Your task to perform on an android device: Show me popular videos on Youtube Image 0: 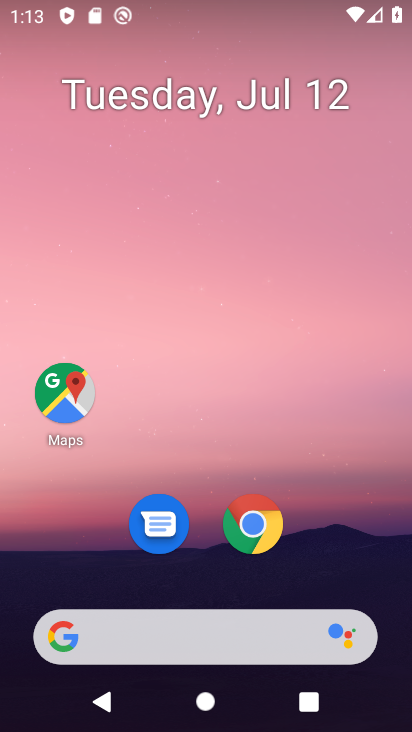
Step 0: drag from (278, 452) to (246, 38)
Your task to perform on an android device: Show me popular videos on Youtube Image 1: 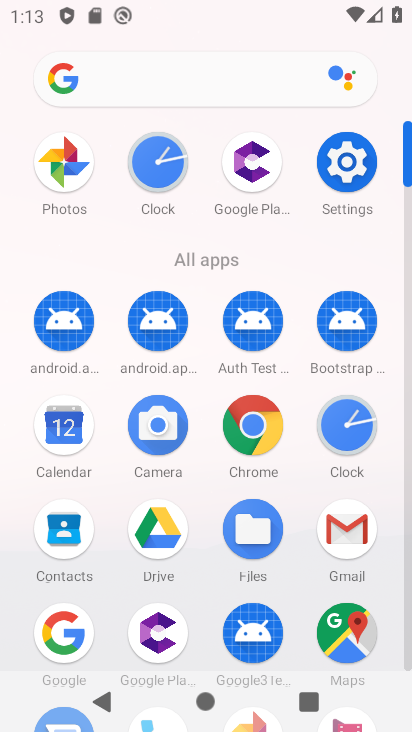
Step 1: drag from (200, 464) to (228, 116)
Your task to perform on an android device: Show me popular videos on Youtube Image 2: 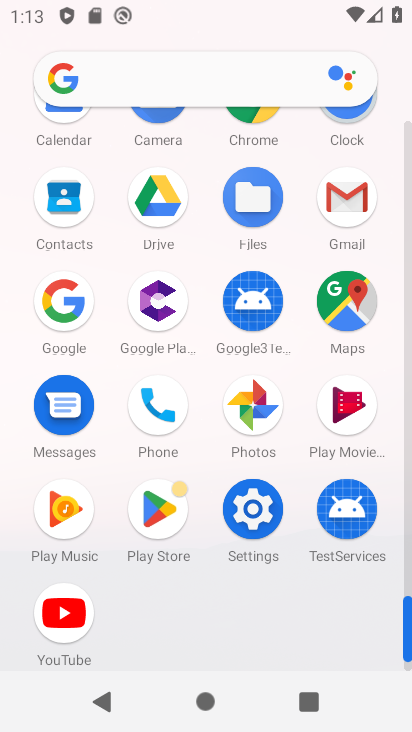
Step 2: click (56, 611)
Your task to perform on an android device: Show me popular videos on Youtube Image 3: 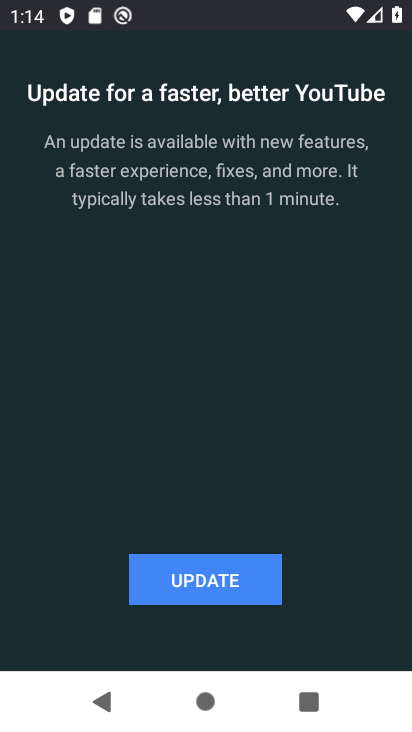
Step 3: click (252, 592)
Your task to perform on an android device: Show me popular videos on Youtube Image 4: 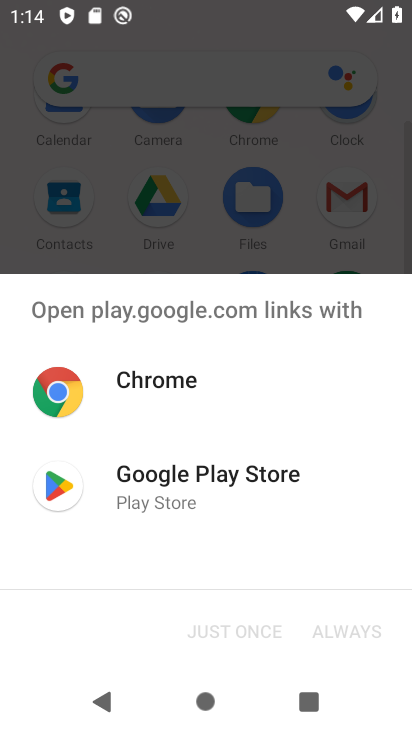
Step 4: click (176, 489)
Your task to perform on an android device: Show me popular videos on Youtube Image 5: 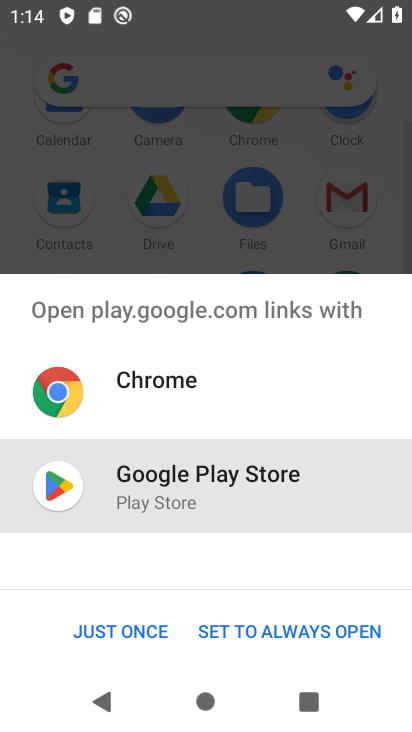
Step 5: click (132, 634)
Your task to perform on an android device: Show me popular videos on Youtube Image 6: 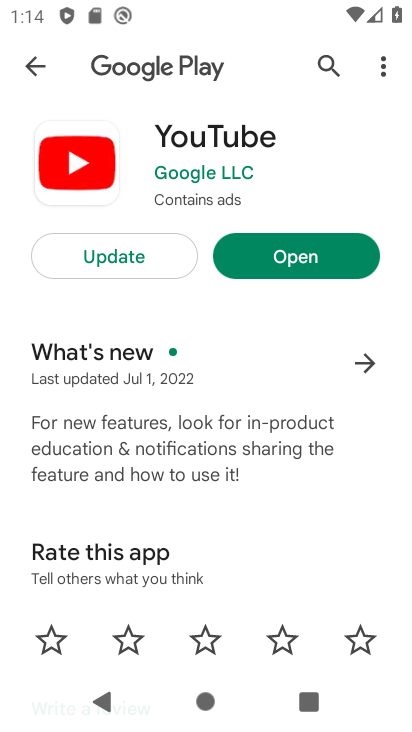
Step 6: click (149, 257)
Your task to perform on an android device: Show me popular videos on Youtube Image 7: 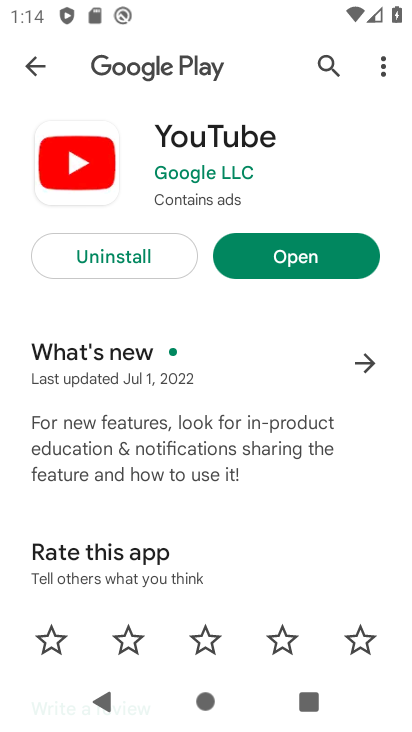
Step 7: click (287, 258)
Your task to perform on an android device: Show me popular videos on Youtube Image 8: 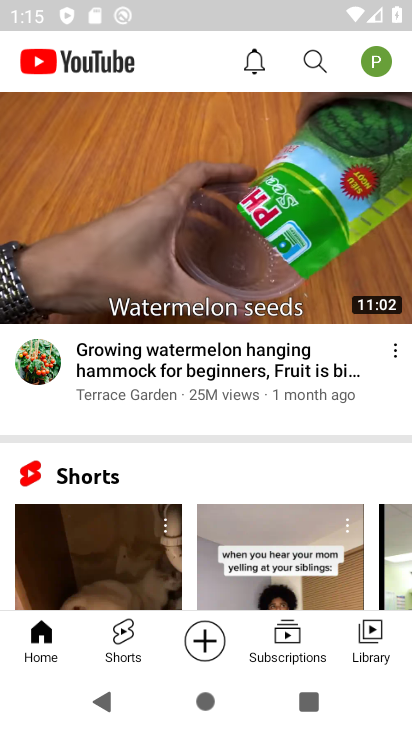
Step 8: click (310, 54)
Your task to perform on an android device: Show me popular videos on Youtube Image 9: 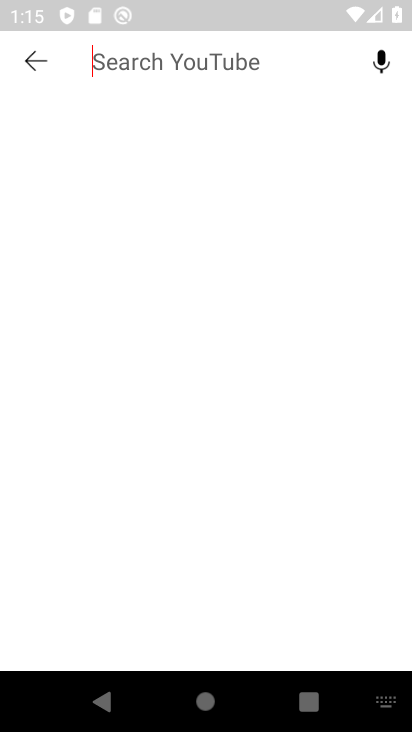
Step 9: type "popular videos"
Your task to perform on an android device: Show me popular videos on Youtube Image 10: 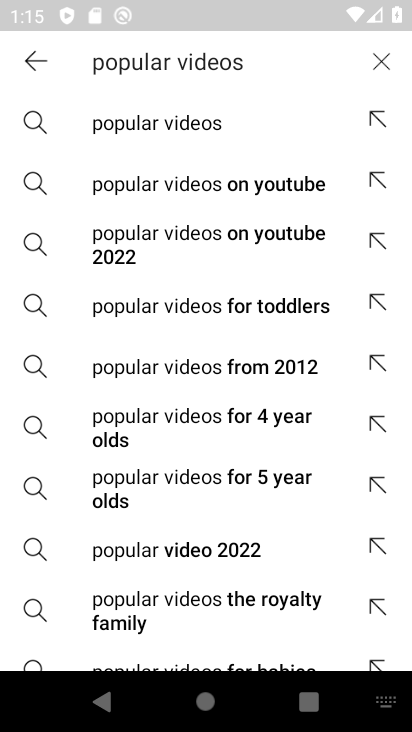
Step 10: click (212, 189)
Your task to perform on an android device: Show me popular videos on Youtube Image 11: 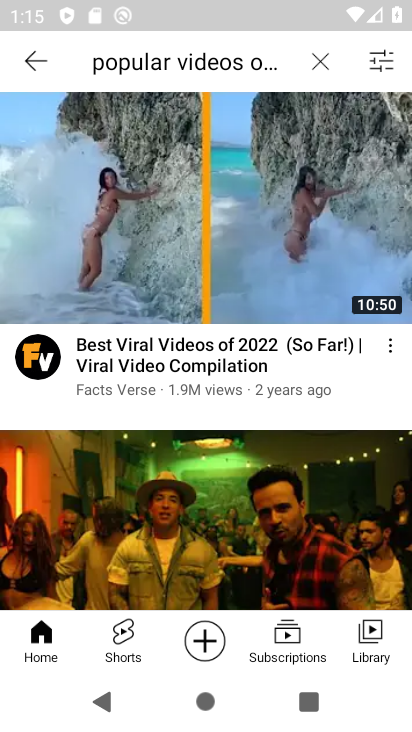
Step 11: task complete